Your task to perform on an android device: toggle data saver in the chrome app Image 0: 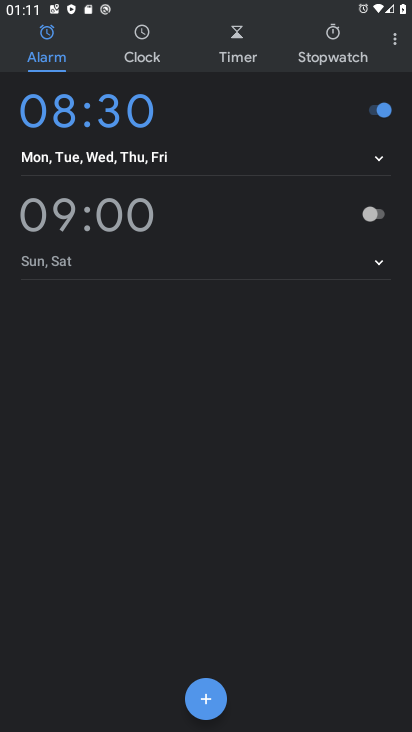
Step 0: press home button
Your task to perform on an android device: toggle data saver in the chrome app Image 1: 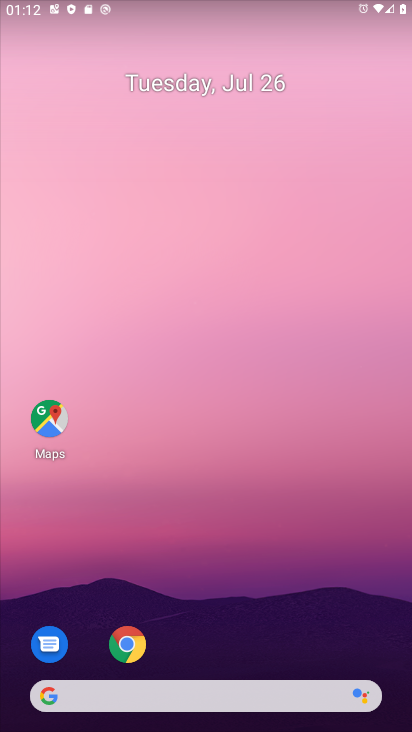
Step 1: drag from (265, 655) to (248, 421)
Your task to perform on an android device: toggle data saver in the chrome app Image 2: 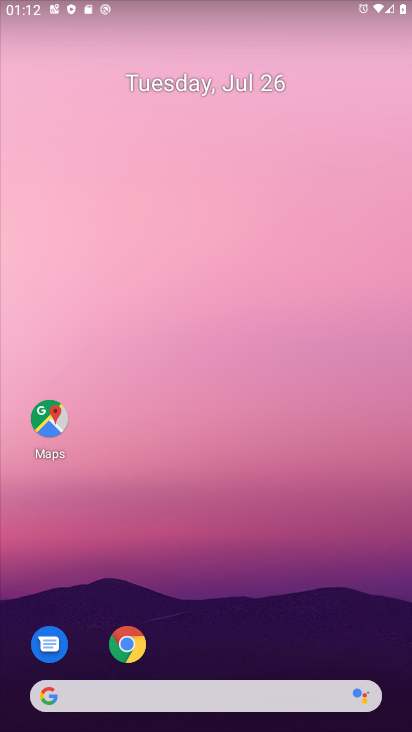
Step 2: click (136, 635)
Your task to perform on an android device: toggle data saver in the chrome app Image 3: 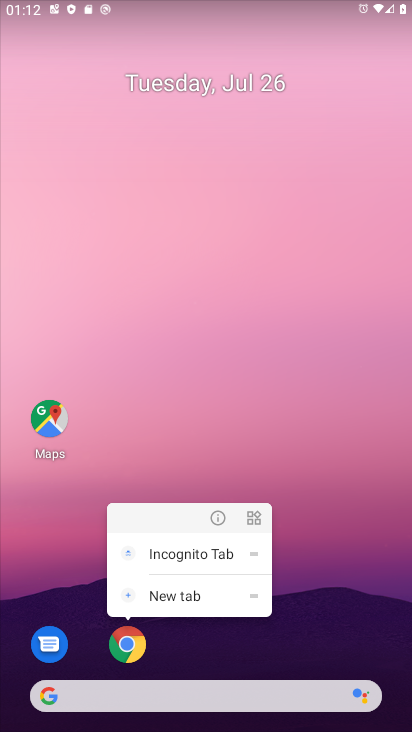
Step 3: click (127, 639)
Your task to perform on an android device: toggle data saver in the chrome app Image 4: 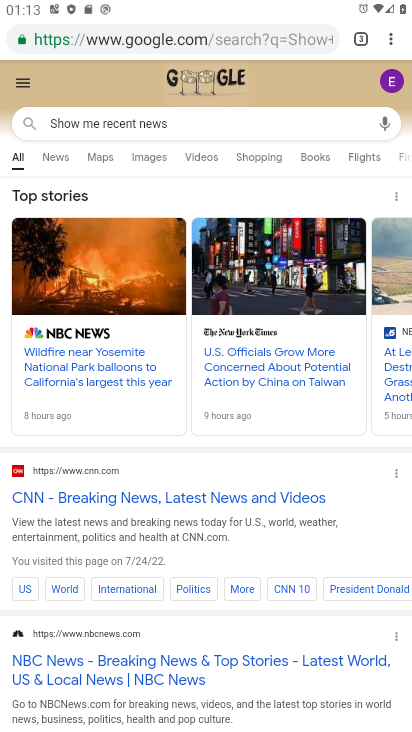
Step 4: click (394, 42)
Your task to perform on an android device: toggle data saver in the chrome app Image 5: 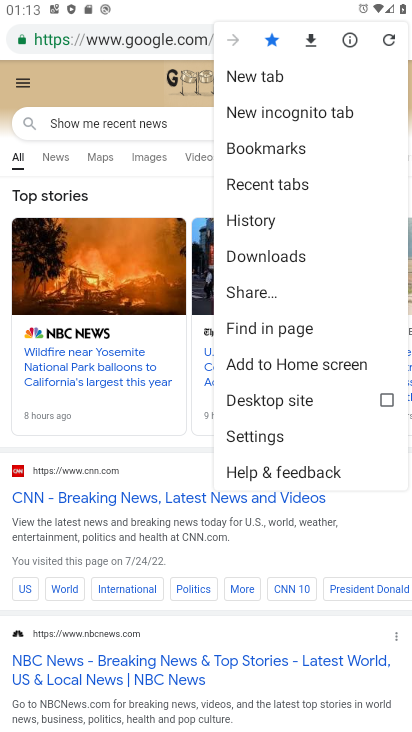
Step 5: click (265, 433)
Your task to perform on an android device: toggle data saver in the chrome app Image 6: 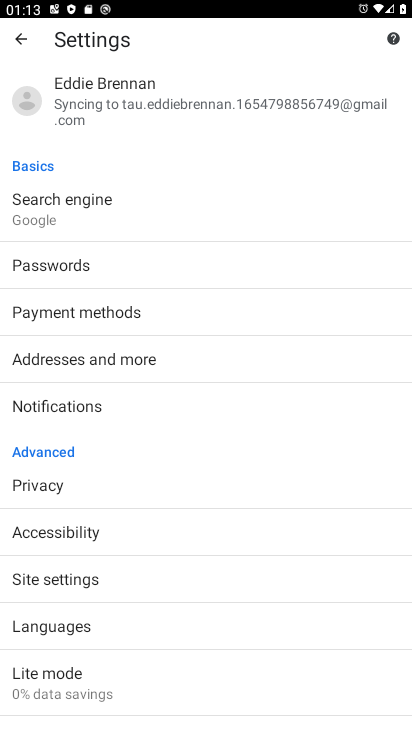
Step 6: click (76, 672)
Your task to perform on an android device: toggle data saver in the chrome app Image 7: 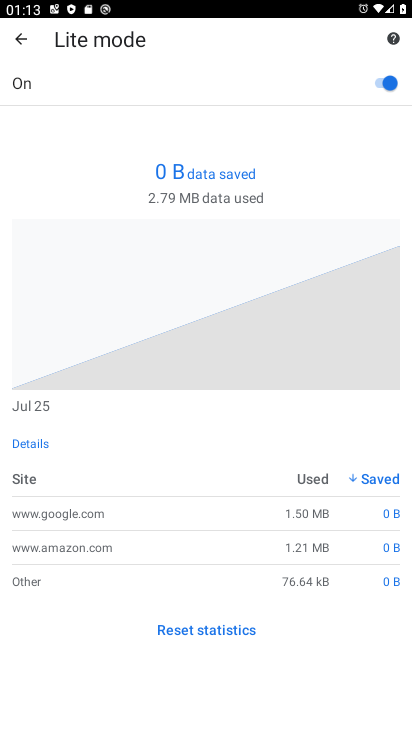
Step 7: click (376, 80)
Your task to perform on an android device: toggle data saver in the chrome app Image 8: 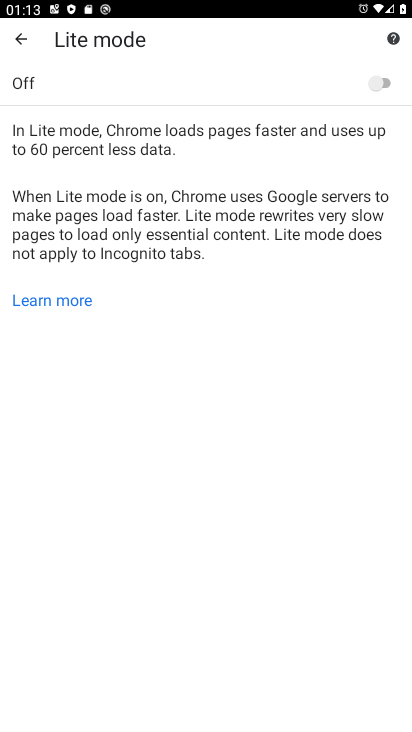
Step 8: task complete